Your task to perform on an android device: Open notification settings Image 0: 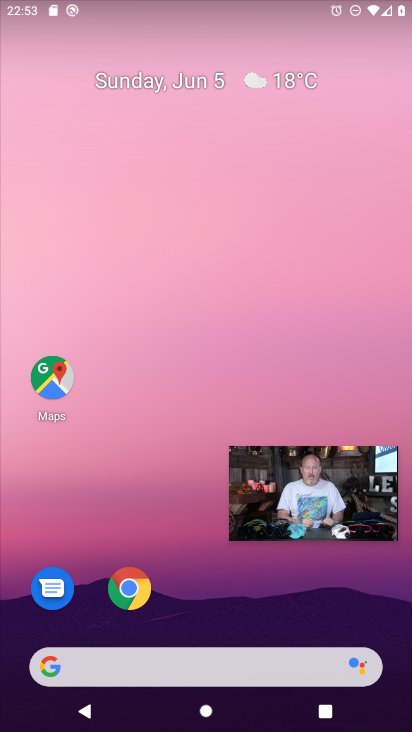
Step 0: drag from (252, 608) to (293, 82)
Your task to perform on an android device: Open notification settings Image 1: 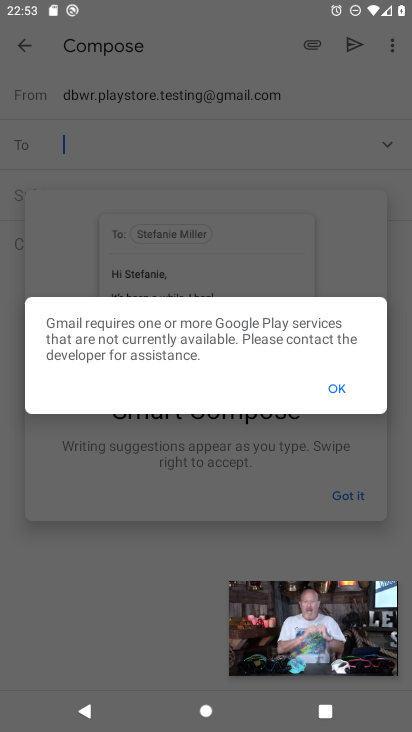
Step 1: press back button
Your task to perform on an android device: Open notification settings Image 2: 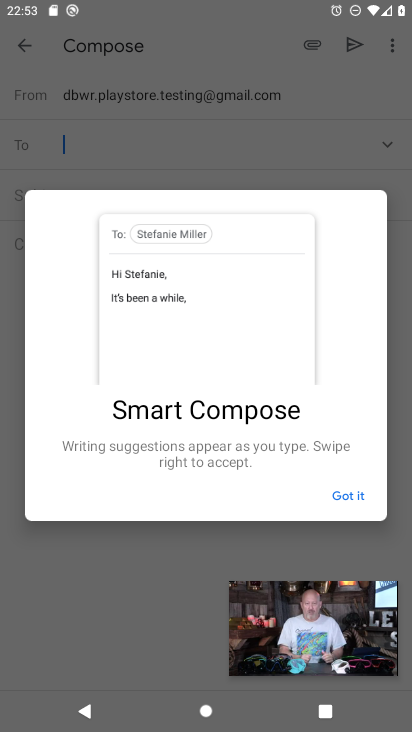
Step 2: press home button
Your task to perform on an android device: Open notification settings Image 3: 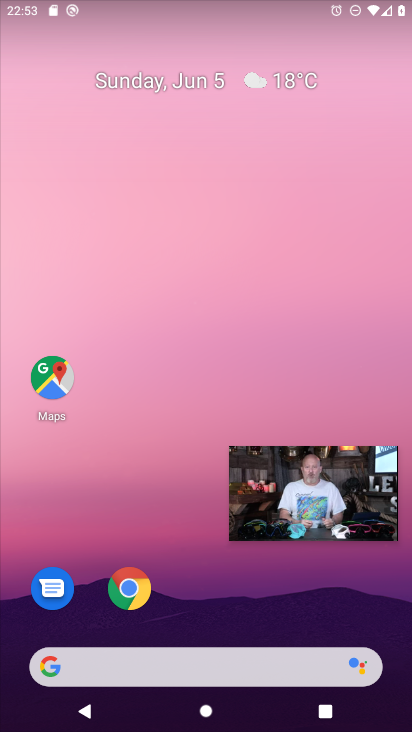
Step 3: drag from (286, 576) to (308, 88)
Your task to perform on an android device: Open notification settings Image 4: 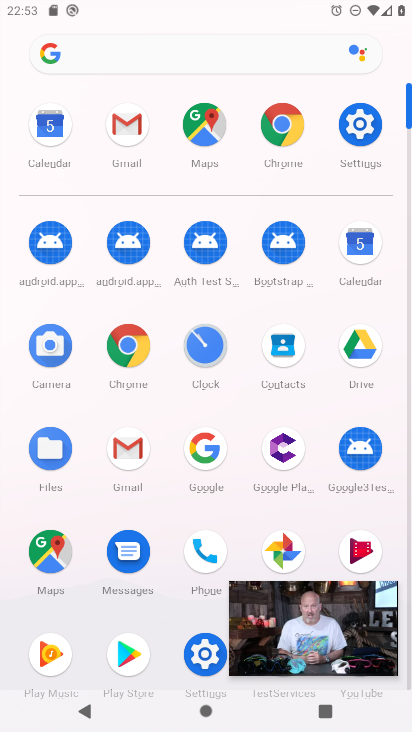
Step 4: click (367, 130)
Your task to perform on an android device: Open notification settings Image 5: 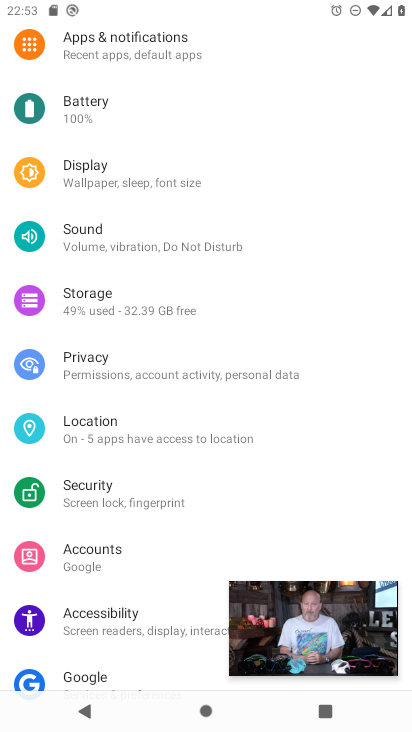
Step 5: drag from (315, 438) to (319, 258)
Your task to perform on an android device: Open notification settings Image 6: 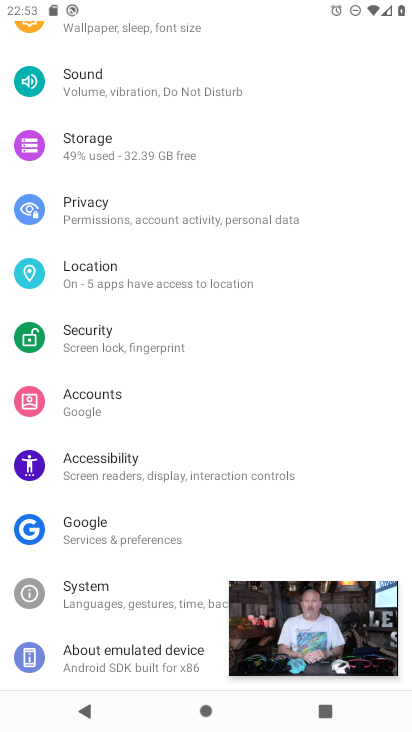
Step 6: drag from (335, 473) to (338, 226)
Your task to perform on an android device: Open notification settings Image 7: 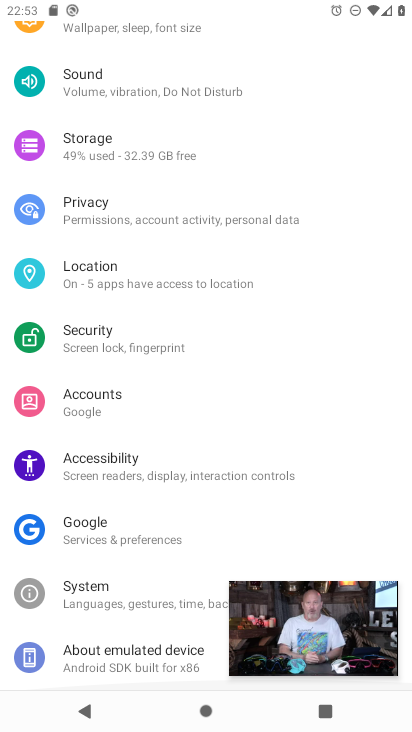
Step 7: drag from (338, 174) to (335, 296)
Your task to perform on an android device: Open notification settings Image 8: 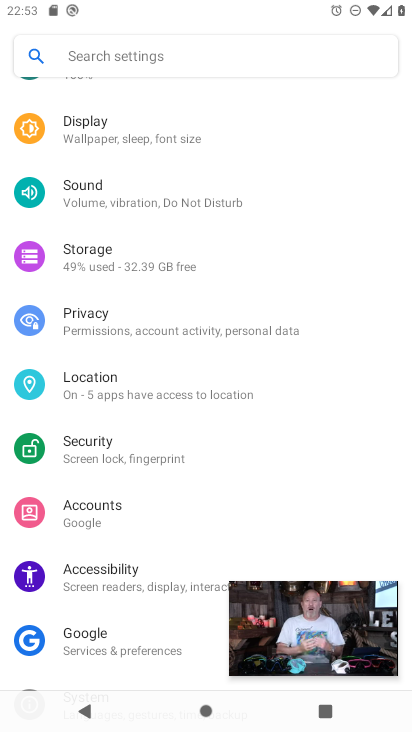
Step 8: drag from (329, 160) to (328, 270)
Your task to perform on an android device: Open notification settings Image 9: 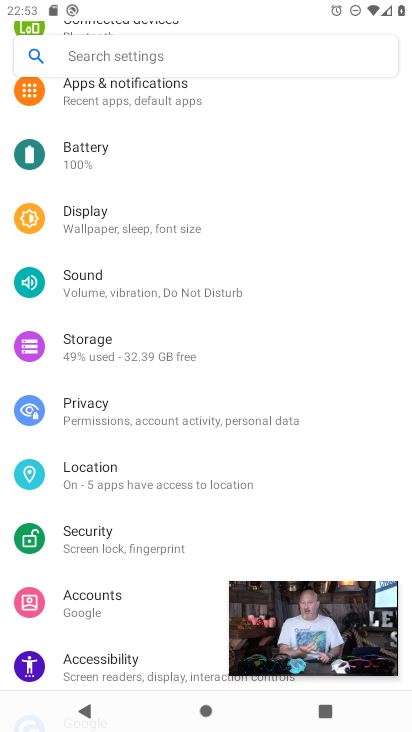
Step 9: drag from (323, 142) to (320, 287)
Your task to perform on an android device: Open notification settings Image 10: 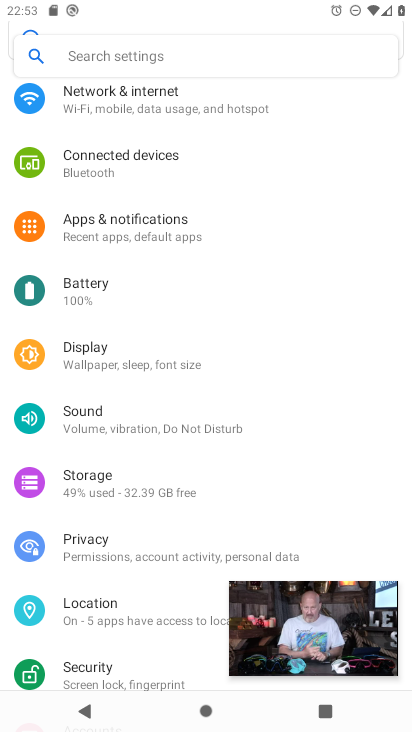
Step 10: drag from (321, 135) to (325, 281)
Your task to perform on an android device: Open notification settings Image 11: 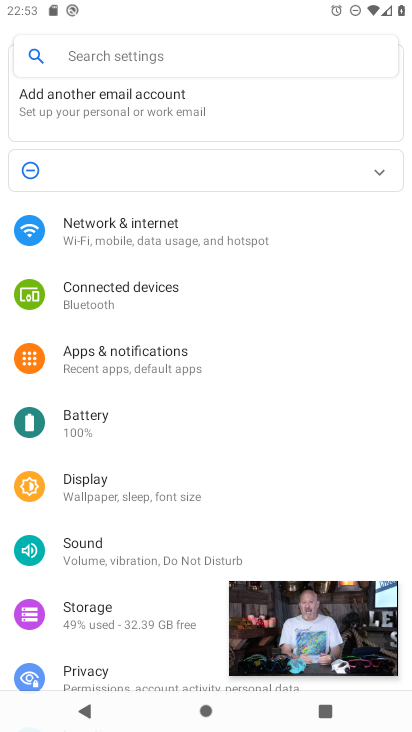
Step 11: click (208, 371)
Your task to perform on an android device: Open notification settings Image 12: 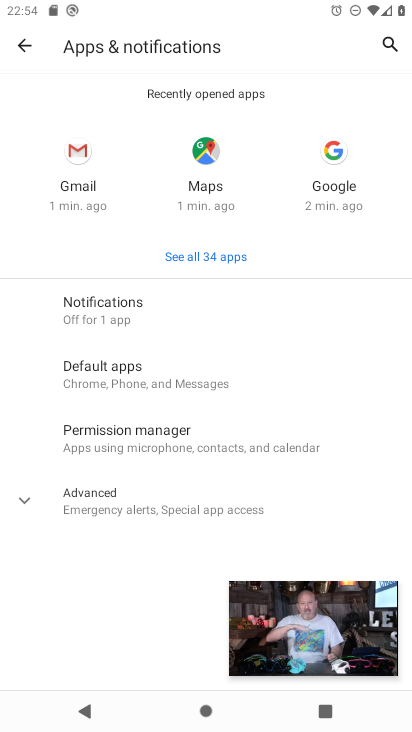
Step 12: click (109, 306)
Your task to perform on an android device: Open notification settings Image 13: 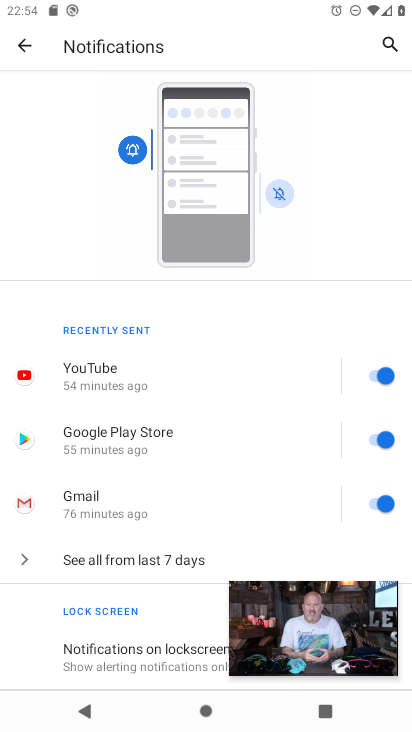
Step 13: task complete